Your task to perform on an android device: change text size in settings app Image 0: 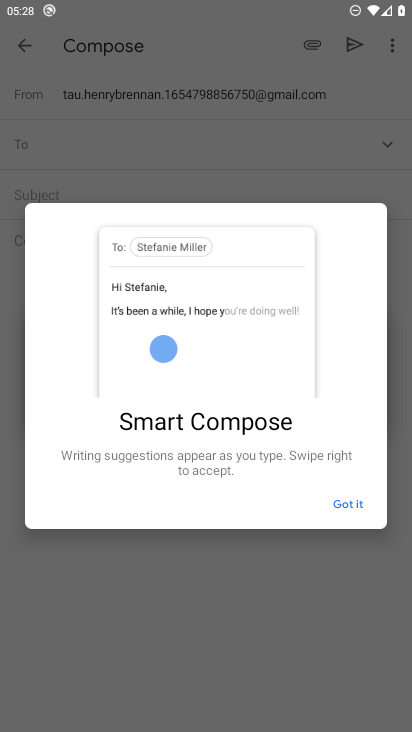
Step 0: press home button
Your task to perform on an android device: change text size in settings app Image 1: 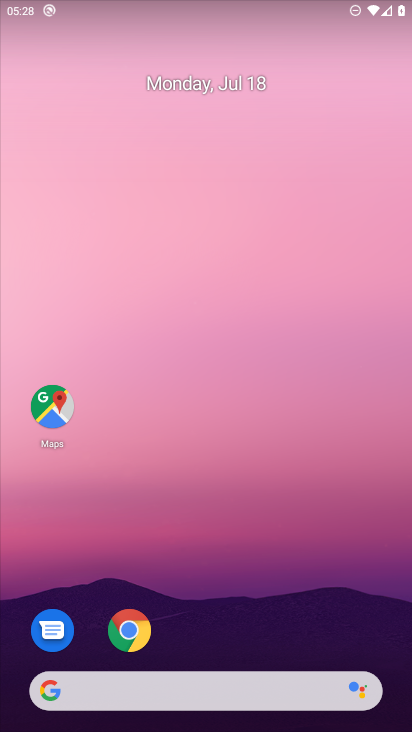
Step 1: drag from (229, 642) to (304, 126)
Your task to perform on an android device: change text size in settings app Image 2: 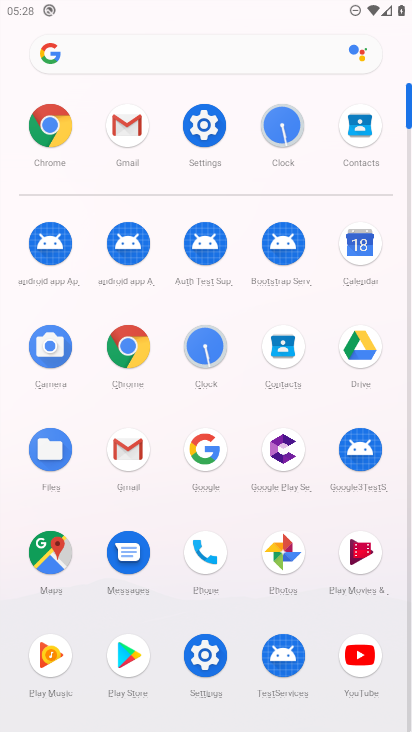
Step 2: click (208, 648)
Your task to perform on an android device: change text size in settings app Image 3: 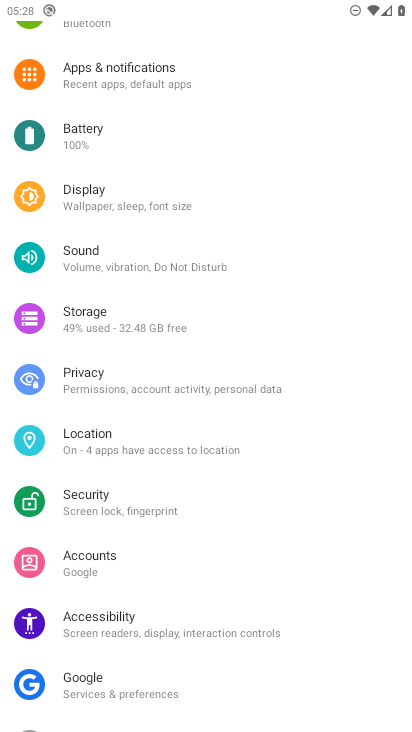
Step 3: click (125, 191)
Your task to perform on an android device: change text size in settings app Image 4: 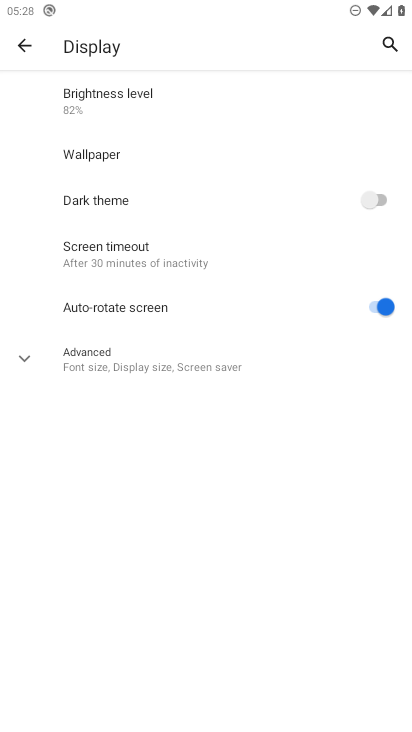
Step 4: click (18, 358)
Your task to perform on an android device: change text size in settings app Image 5: 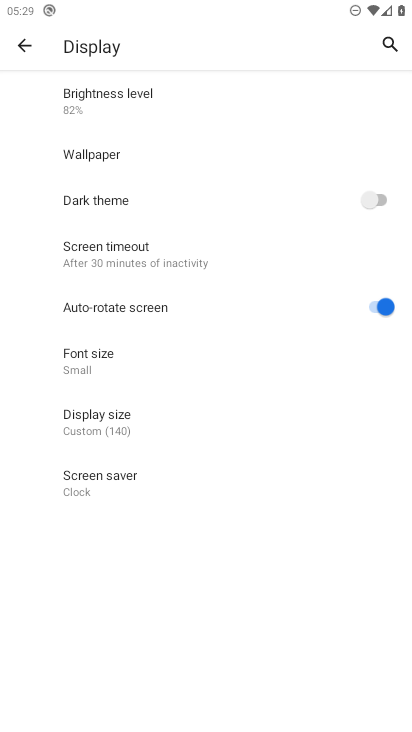
Step 5: click (119, 365)
Your task to perform on an android device: change text size in settings app Image 6: 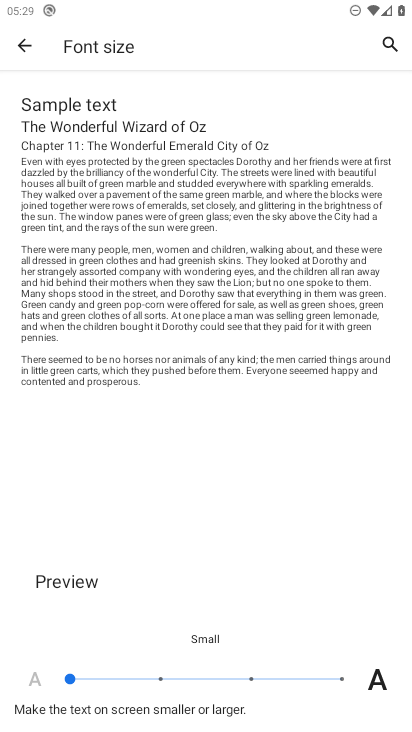
Step 6: click (342, 676)
Your task to perform on an android device: change text size in settings app Image 7: 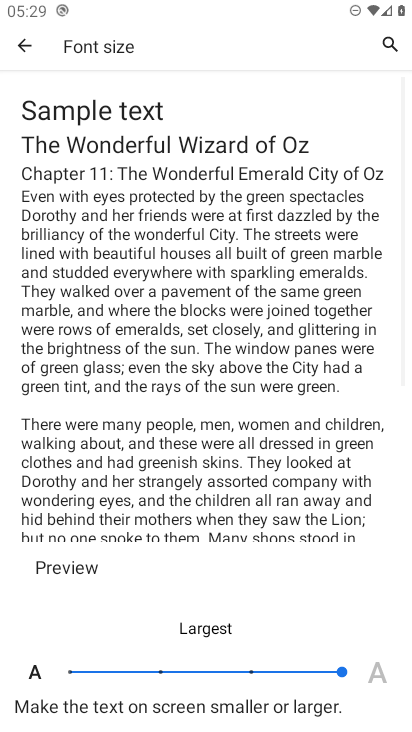
Step 7: task complete